Your task to perform on an android device: move a message to another label in the gmail app Image 0: 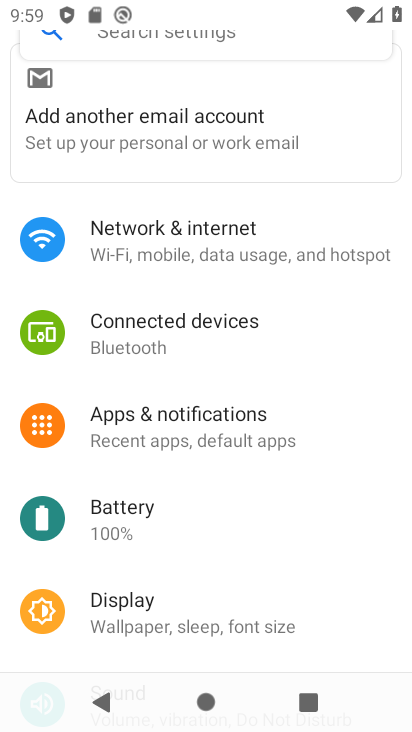
Step 0: press home button
Your task to perform on an android device: move a message to another label in the gmail app Image 1: 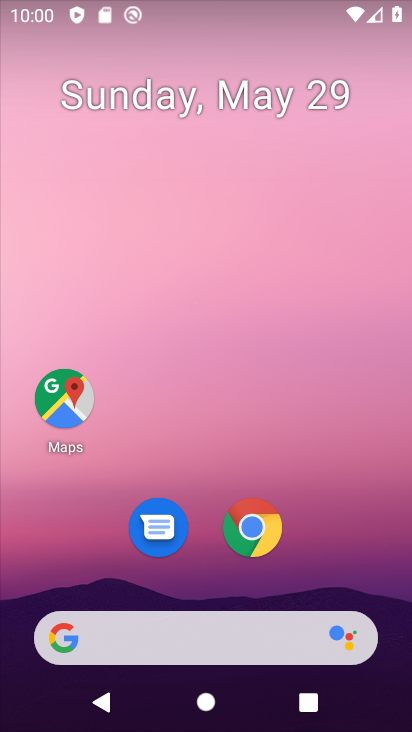
Step 1: drag from (344, 555) to (336, 85)
Your task to perform on an android device: move a message to another label in the gmail app Image 2: 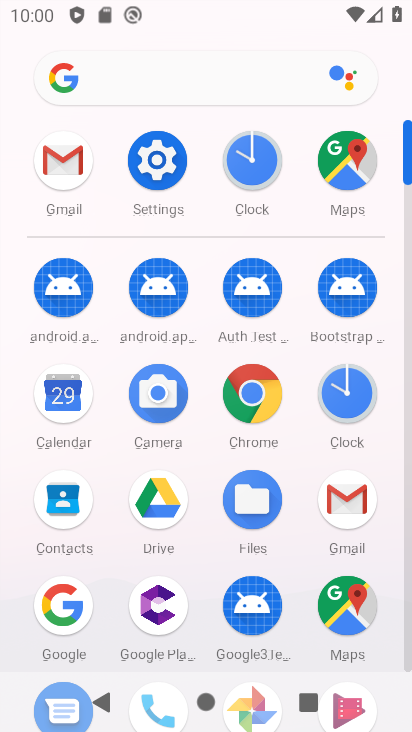
Step 2: click (60, 163)
Your task to perform on an android device: move a message to another label in the gmail app Image 3: 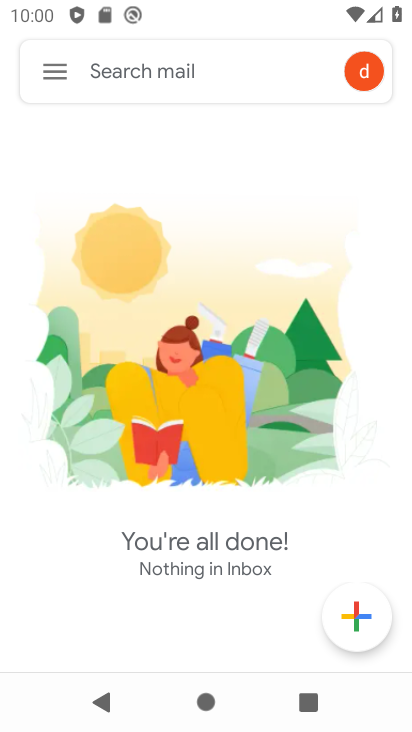
Step 3: click (48, 72)
Your task to perform on an android device: move a message to another label in the gmail app Image 4: 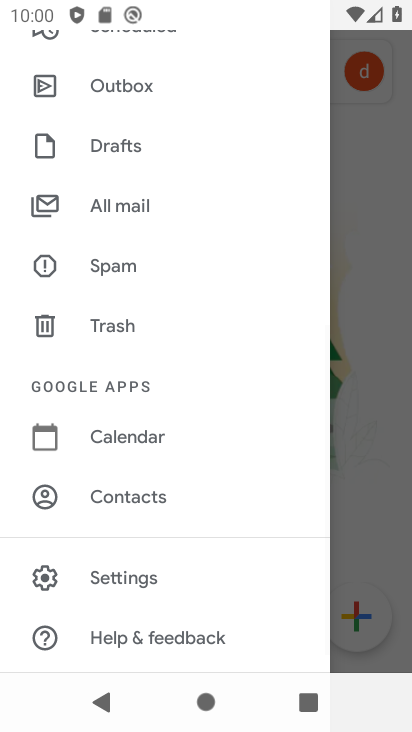
Step 4: click (117, 198)
Your task to perform on an android device: move a message to another label in the gmail app Image 5: 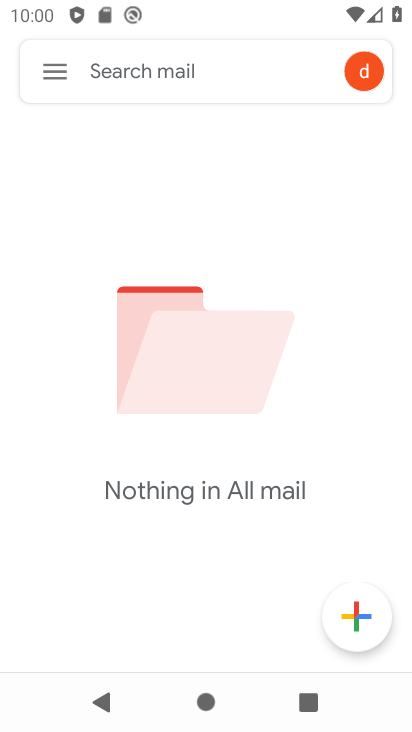
Step 5: task complete